Your task to perform on an android device: Go to sound settings Image 0: 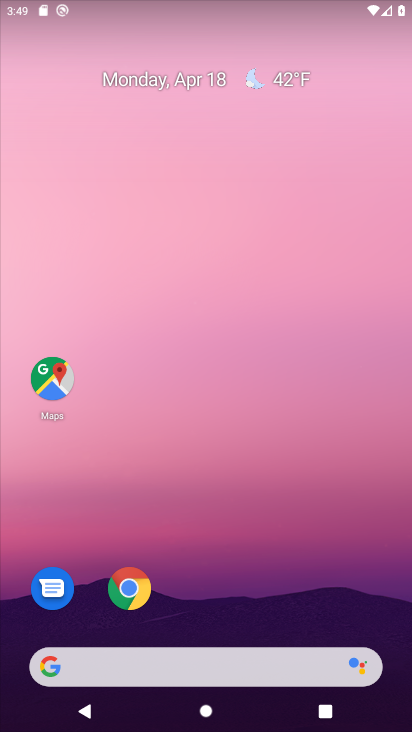
Step 0: drag from (244, 452) to (271, 186)
Your task to perform on an android device: Go to sound settings Image 1: 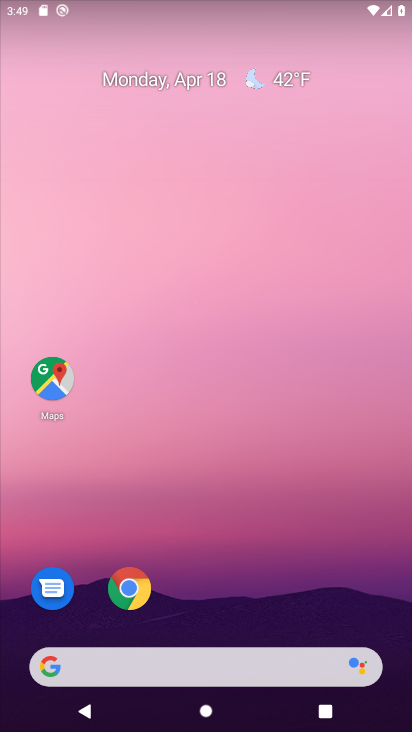
Step 1: drag from (274, 500) to (304, 83)
Your task to perform on an android device: Go to sound settings Image 2: 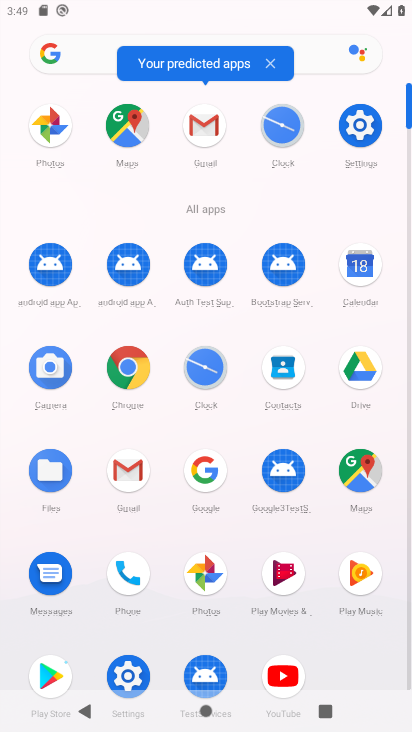
Step 2: click (378, 132)
Your task to perform on an android device: Go to sound settings Image 3: 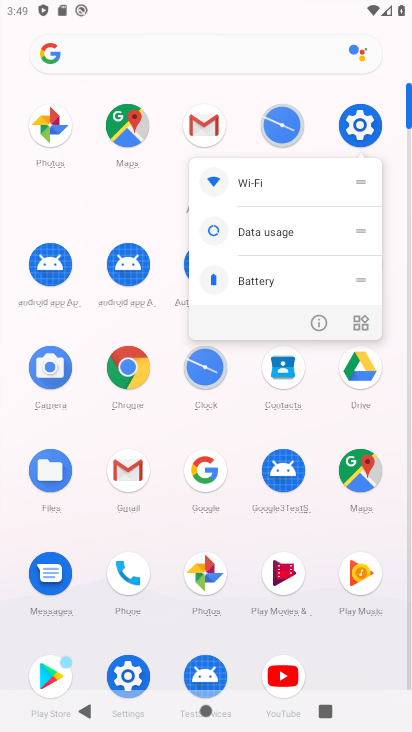
Step 3: click (369, 136)
Your task to perform on an android device: Go to sound settings Image 4: 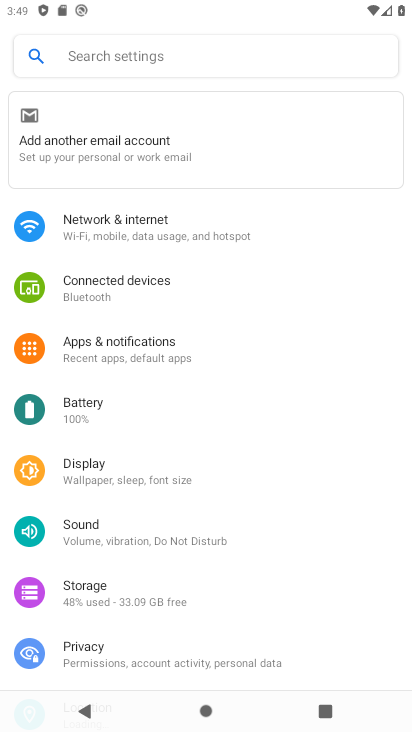
Step 4: click (89, 524)
Your task to perform on an android device: Go to sound settings Image 5: 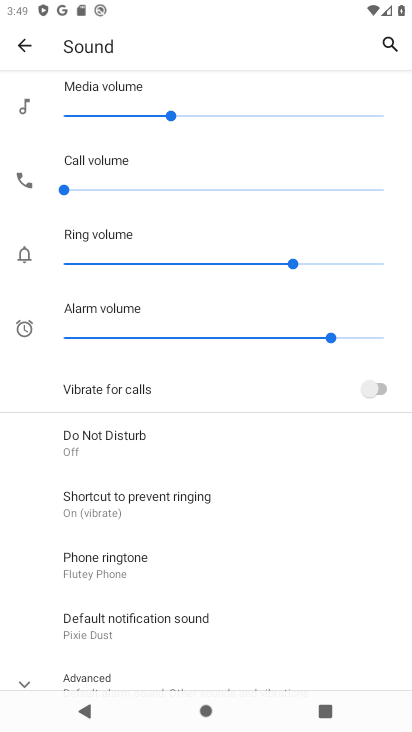
Step 5: task complete